Your task to perform on an android device: Open maps Image 0: 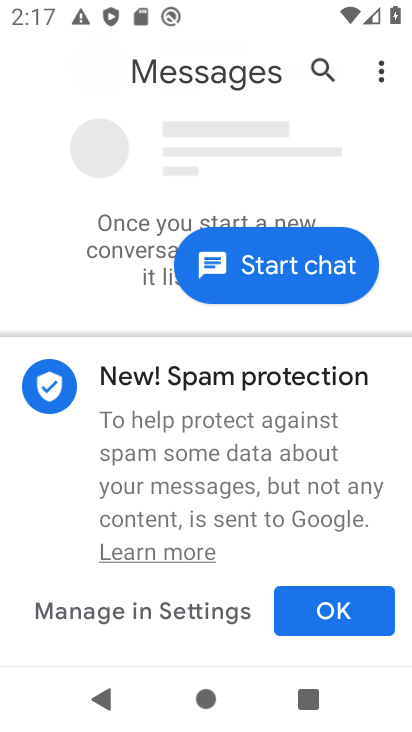
Step 0: press home button
Your task to perform on an android device: Open maps Image 1: 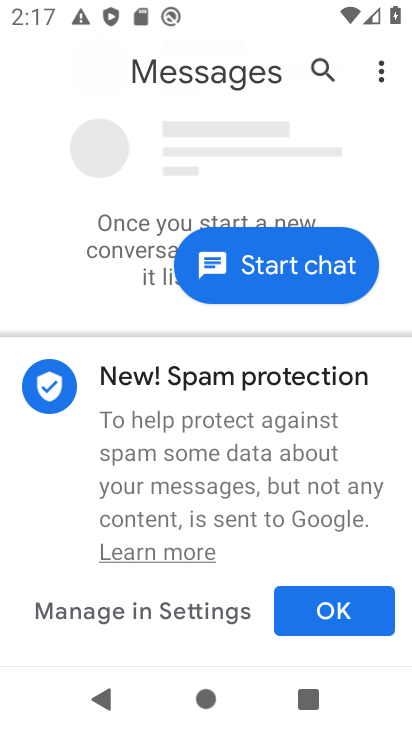
Step 1: press home button
Your task to perform on an android device: Open maps Image 2: 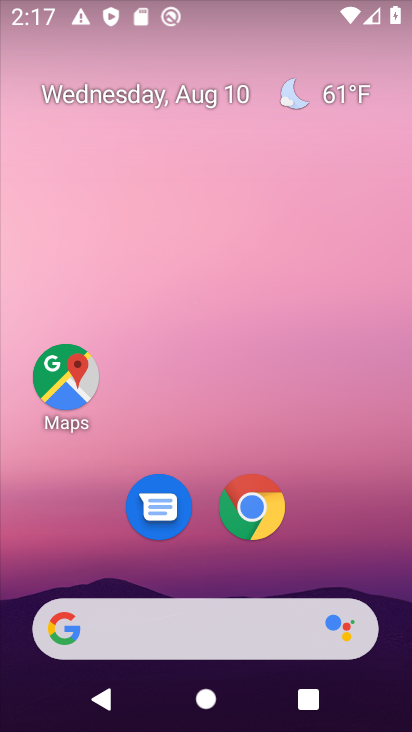
Step 2: click (61, 362)
Your task to perform on an android device: Open maps Image 3: 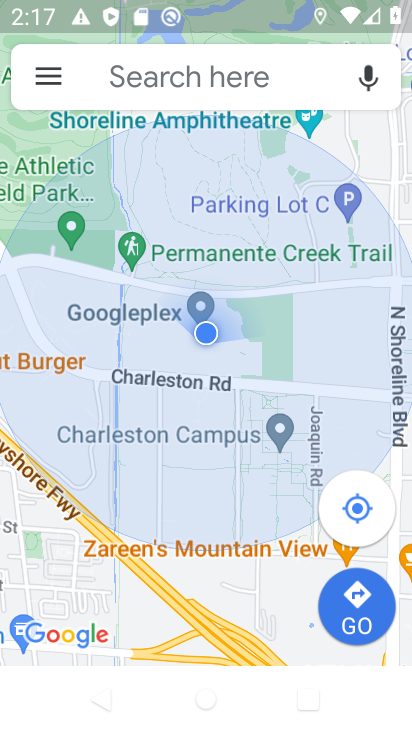
Step 3: task complete